Your task to perform on an android device: check android version Image 0: 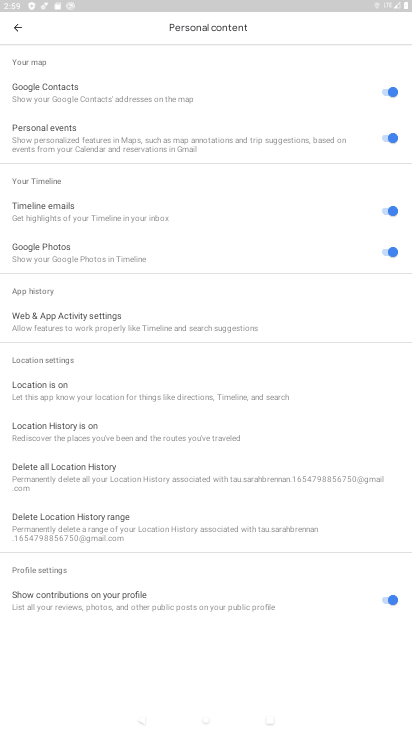
Step 0: press home button
Your task to perform on an android device: check android version Image 1: 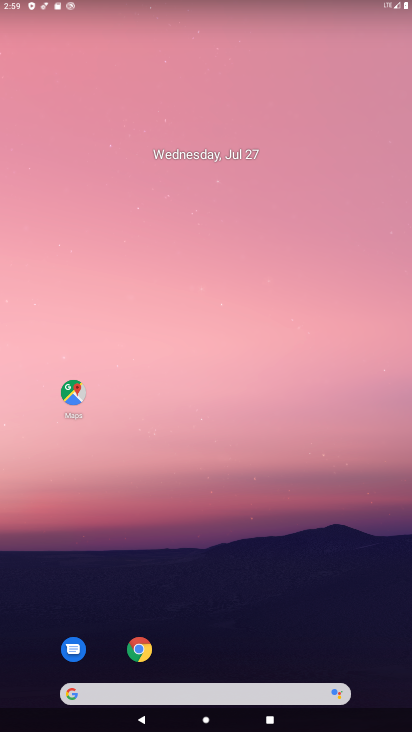
Step 1: drag from (288, 631) to (300, 146)
Your task to perform on an android device: check android version Image 2: 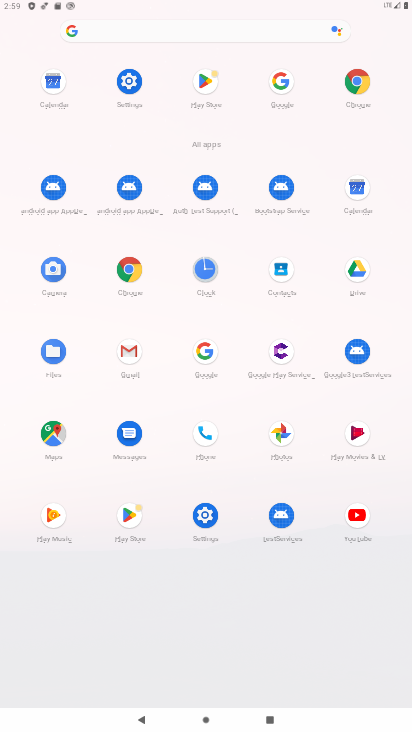
Step 2: click (208, 512)
Your task to perform on an android device: check android version Image 3: 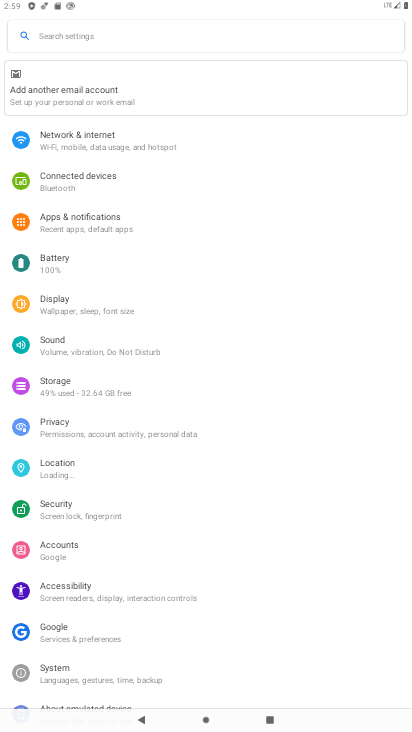
Step 3: drag from (257, 609) to (260, 332)
Your task to perform on an android device: check android version Image 4: 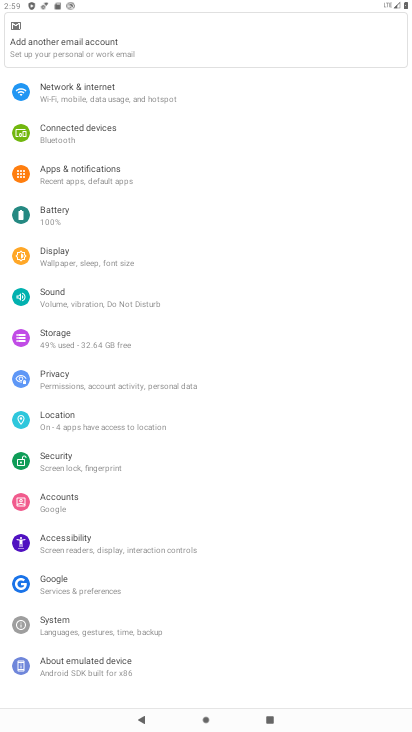
Step 4: click (86, 666)
Your task to perform on an android device: check android version Image 5: 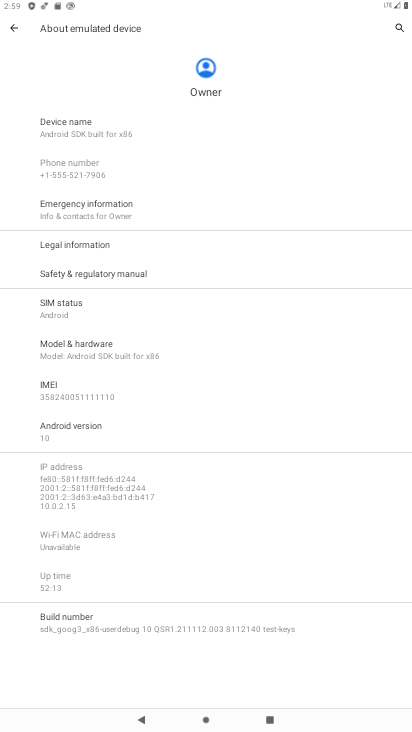
Step 5: click (76, 425)
Your task to perform on an android device: check android version Image 6: 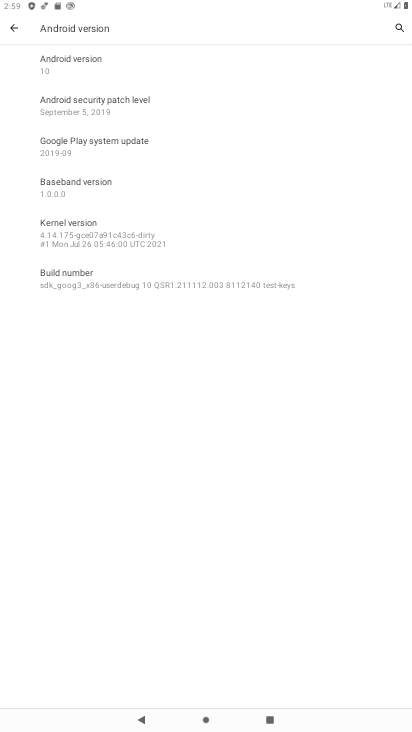
Step 6: task complete